Your task to perform on an android device: Go to Maps Image 0: 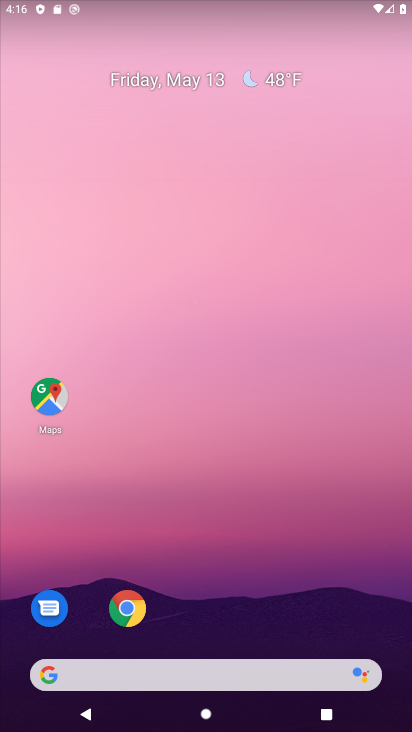
Step 0: drag from (225, 720) to (229, 154)
Your task to perform on an android device: Go to Maps Image 1: 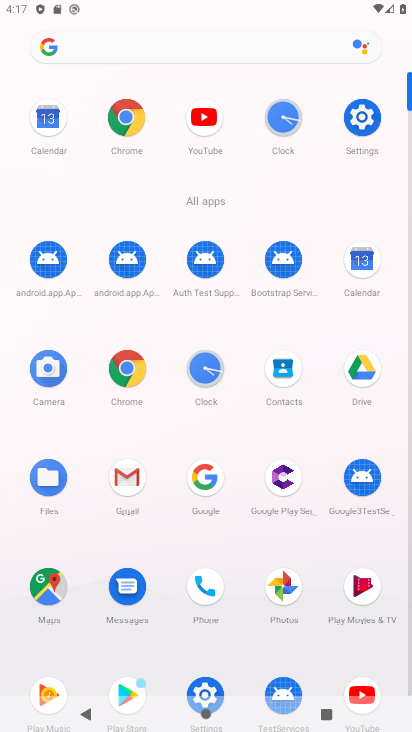
Step 1: click (49, 589)
Your task to perform on an android device: Go to Maps Image 2: 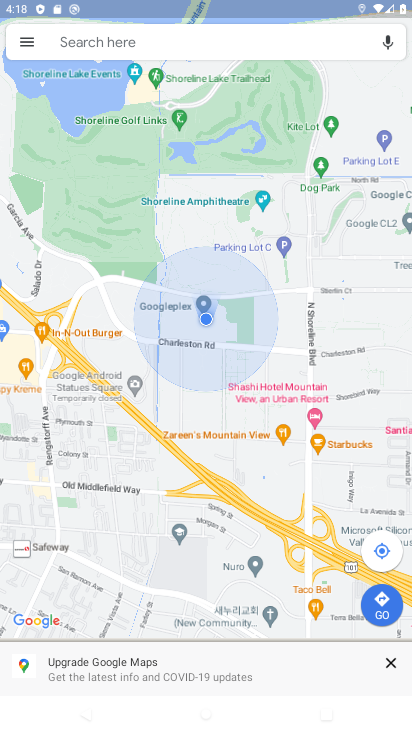
Step 2: task complete